Your task to perform on an android device: Is it going to rain this weekend? Image 0: 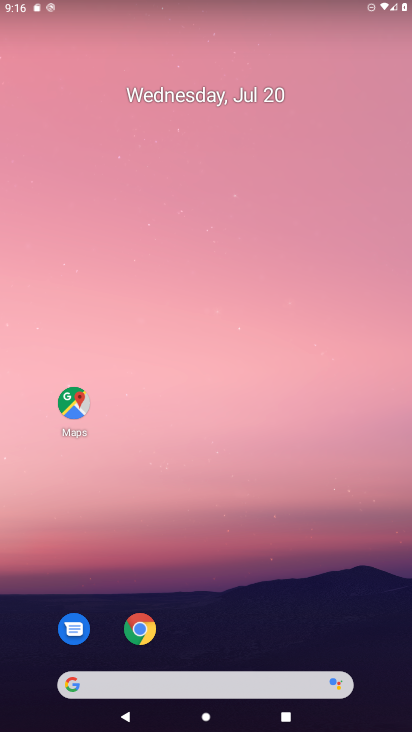
Step 0: drag from (9, 281) to (368, 257)
Your task to perform on an android device: Is it going to rain this weekend? Image 1: 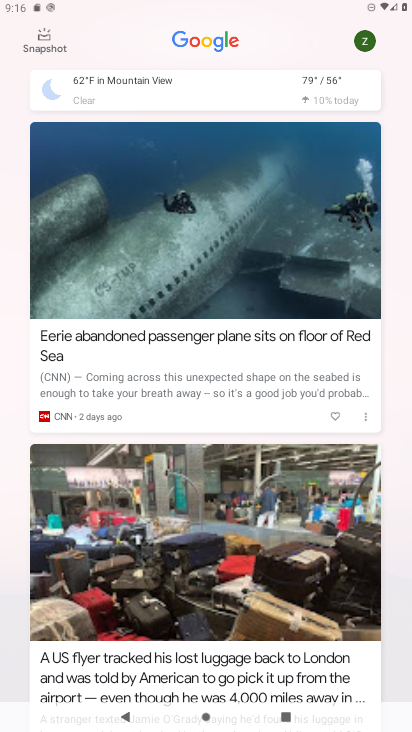
Step 1: click (319, 83)
Your task to perform on an android device: Is it going to rain this weekend? Image 2: 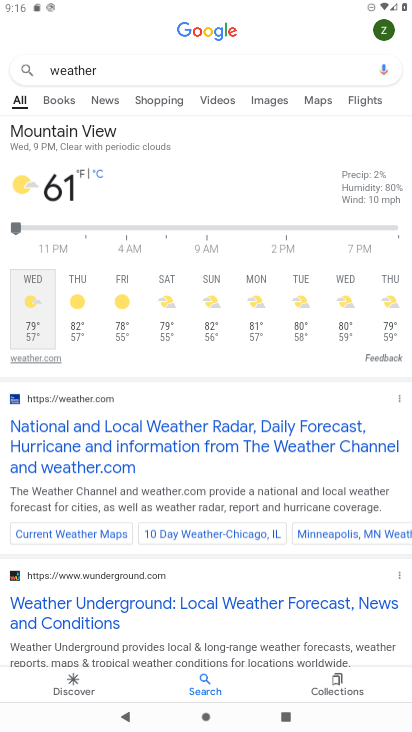
Step 2: task complete